Your task to perform on an android device: Go to wifi settings Image 0: 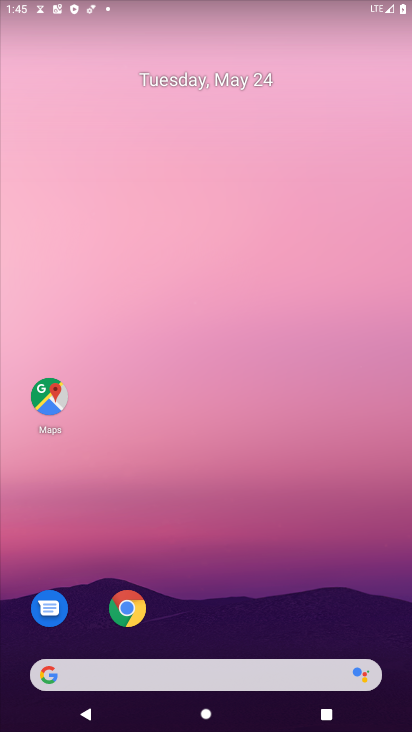
Step 0: drag from (229, 629) to (183, 254)
Your task to perform on an android device: Go to wifi settings Image 1: 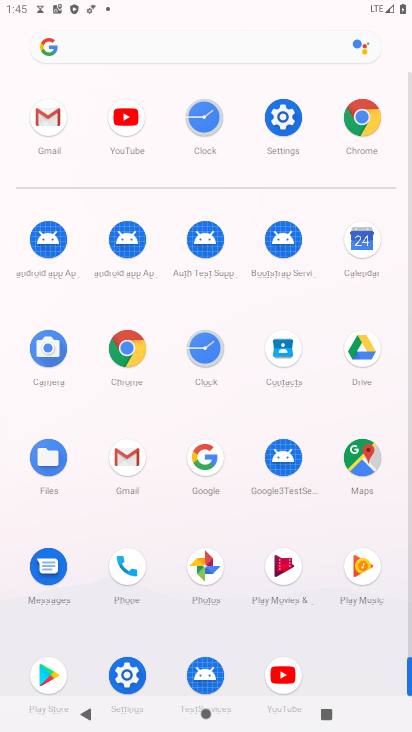
Step 1: click (285, 115)
Your task to perform on an android device: Go to wifi settings Image 2: 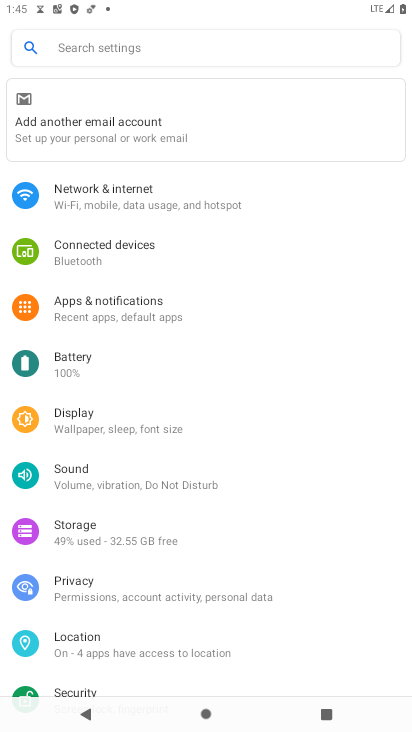
Step 2: click (144, 185)
Your task to perform on an android device: Go to wifi settings Image 3: 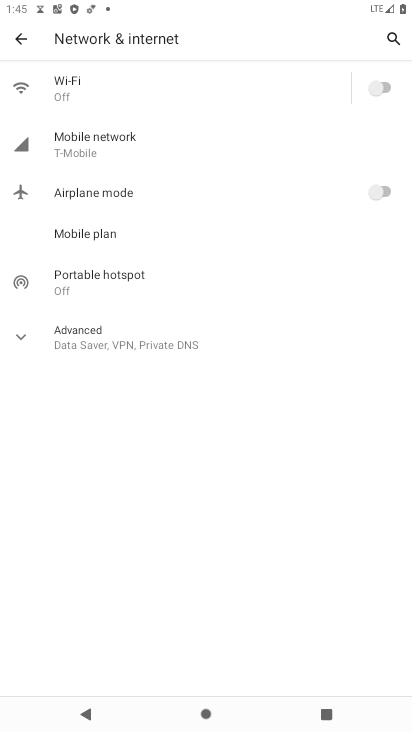
Step 3: click (96, 82)
Your task to perform on an android device: Go to wifi settings Image 4: 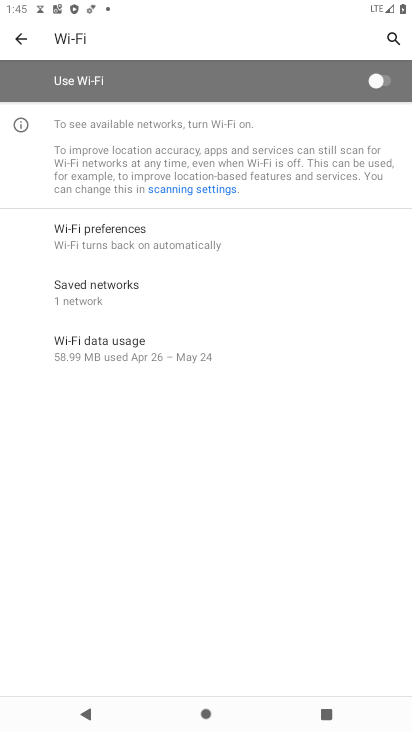
Step 4: task complete